Your task to perform on an android device: Open settings Image 0: 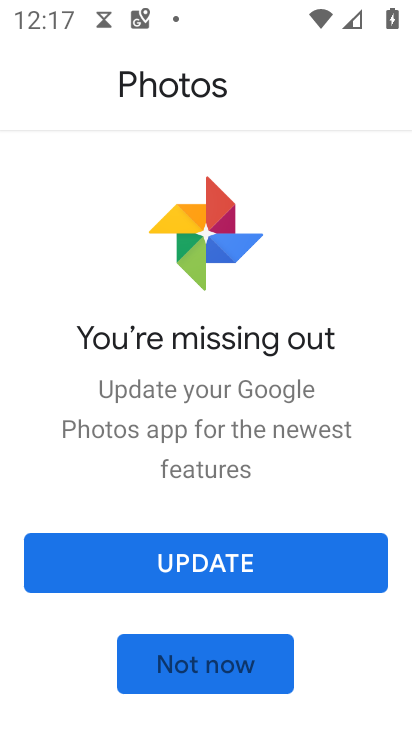
Step 0: press home button
Your task to perform on an android device: Open settings Image 1: 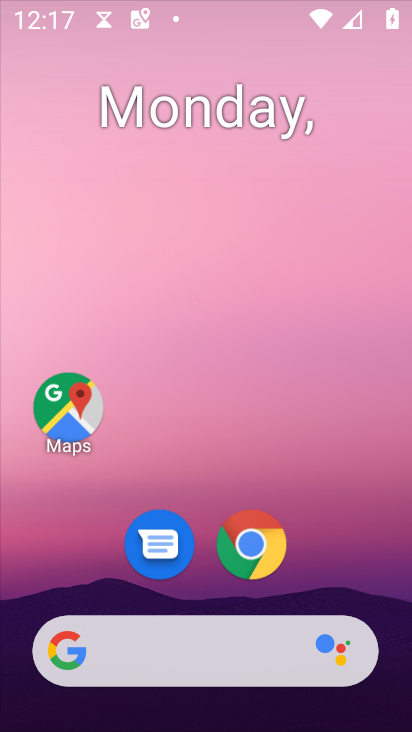
Step 1: drag from (295, 475) to (292, 253)
Your task to perform on an android device: Open settings Image 2: 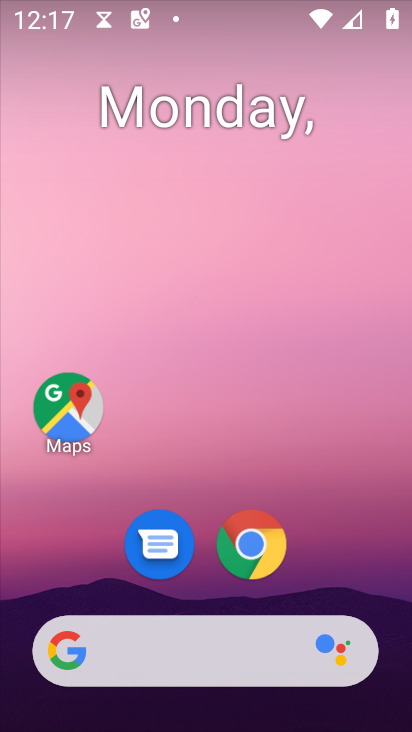
Step 2: drag from (279, 580) to (306, 333)
Your task to perform on an android device: Open settings Image 3: 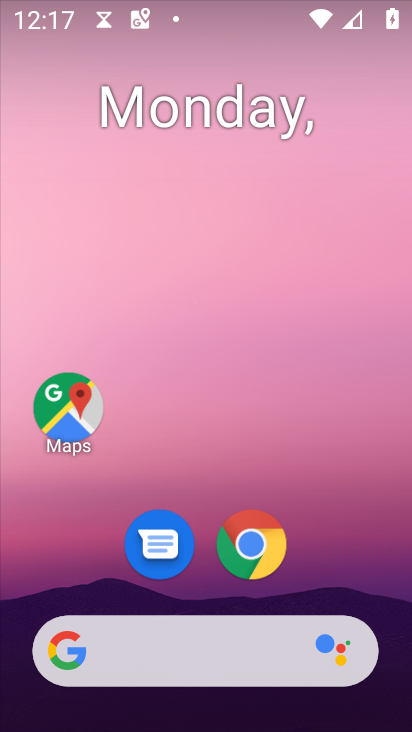
Step 3: drag from (302, 538) to (354, 233)
Your task to perform on an android device: Open settings Image 4: 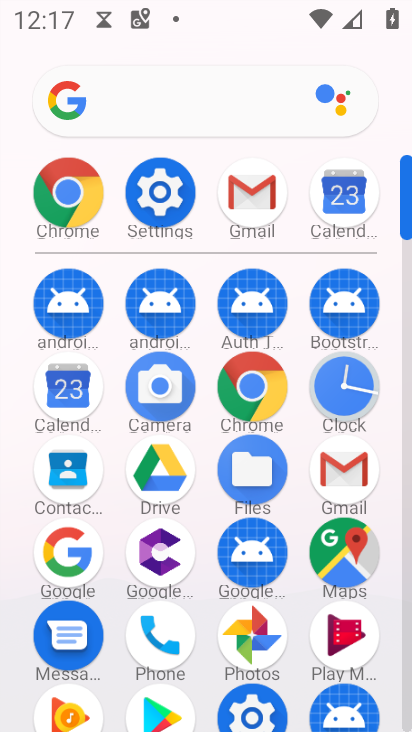
Step 4: click (154, 194)
Your task to perform on an android device: Open settings Image 5: 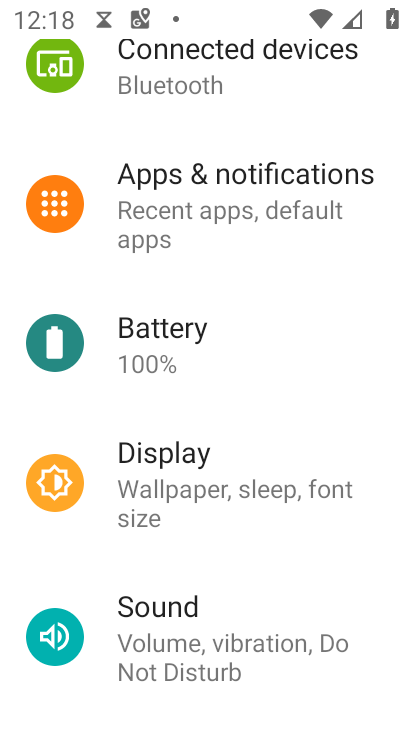
Step 5: task complete